Your task to perform on an android device: Show me popular videos on Youtube Image 0: 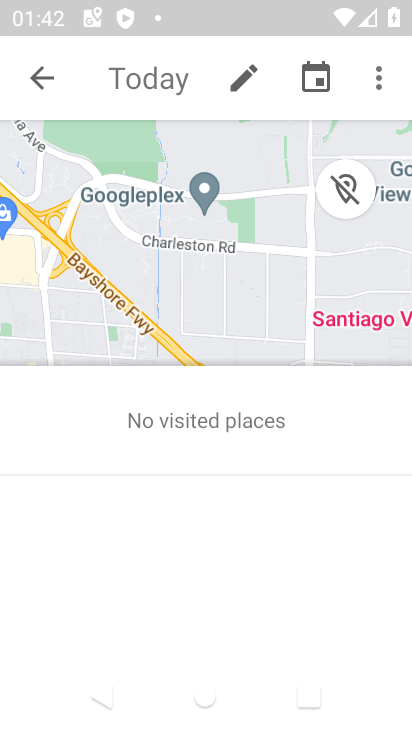
Step 0: press home button
Your task to perform on an android device: Show me popular videos on Youtube Image 1: 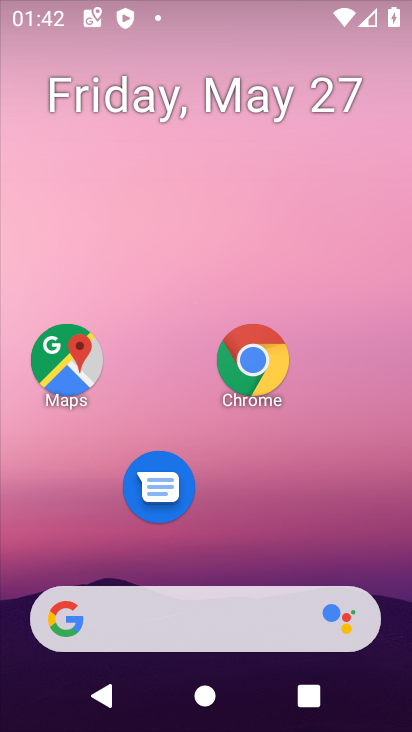
Step 1: drag from (248, 528) to (300, 43)
Your task to perform on an android device: Show me popular videos on Youtube Image 2: 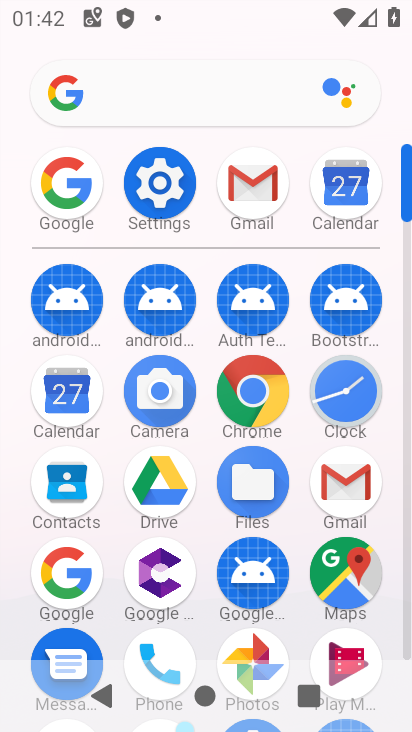
Step 2: drag from (291, 510) to (334, 25)
Your task to perform on an android device: Show me popular videos on Youtube Image 3: 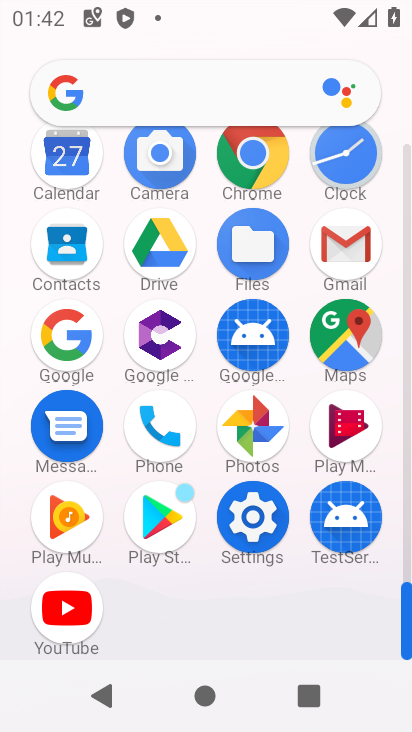
Step 3: click (66, 607)
Your task to perform on an android device: Show me popular videos on Youtube Image 4: 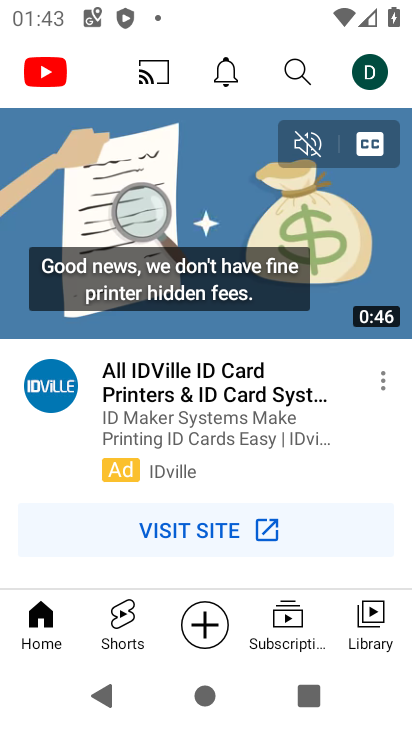
Step 4: task complete